Your task to perform on an android device: Open CNN.com Image 0: 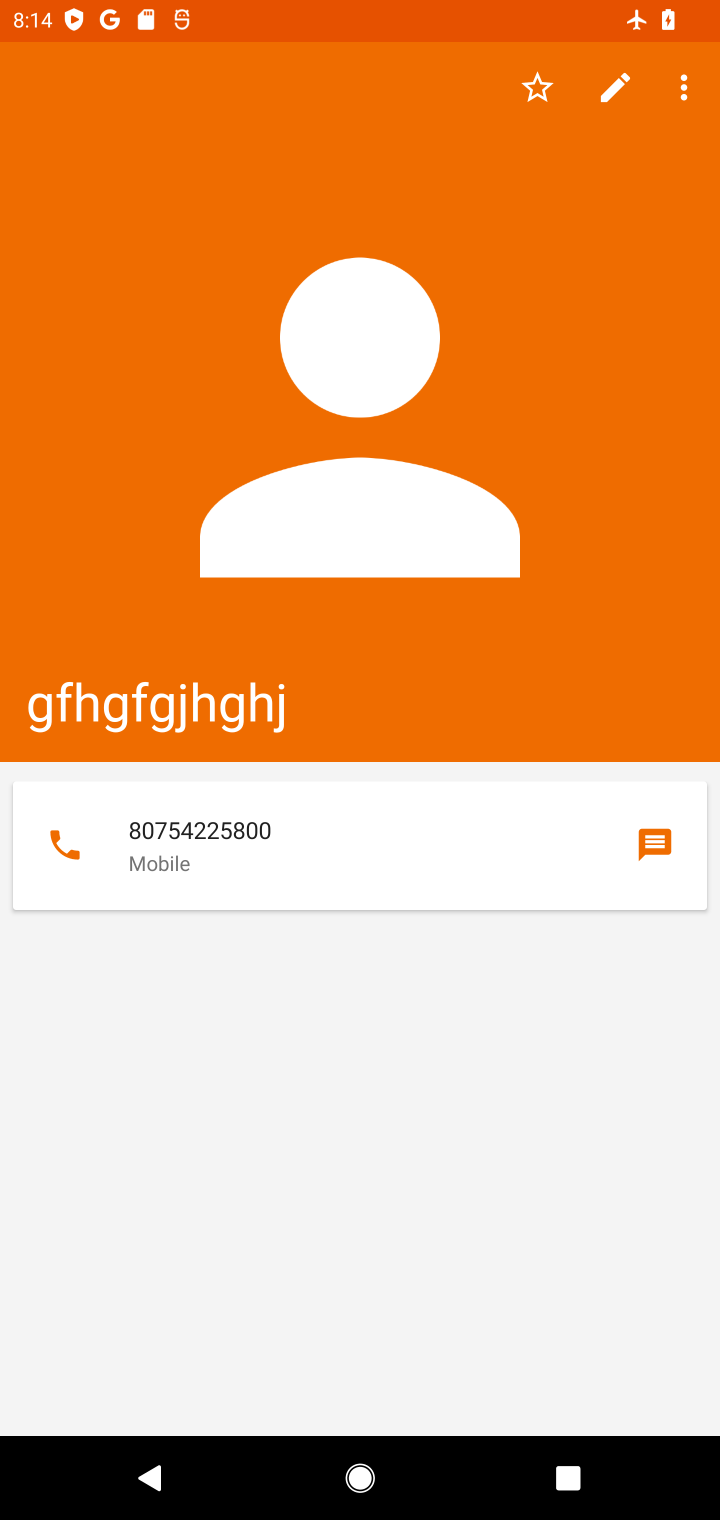
Step 0: press home button
Your task to perform on an android device: Open CNN.com Image 1: 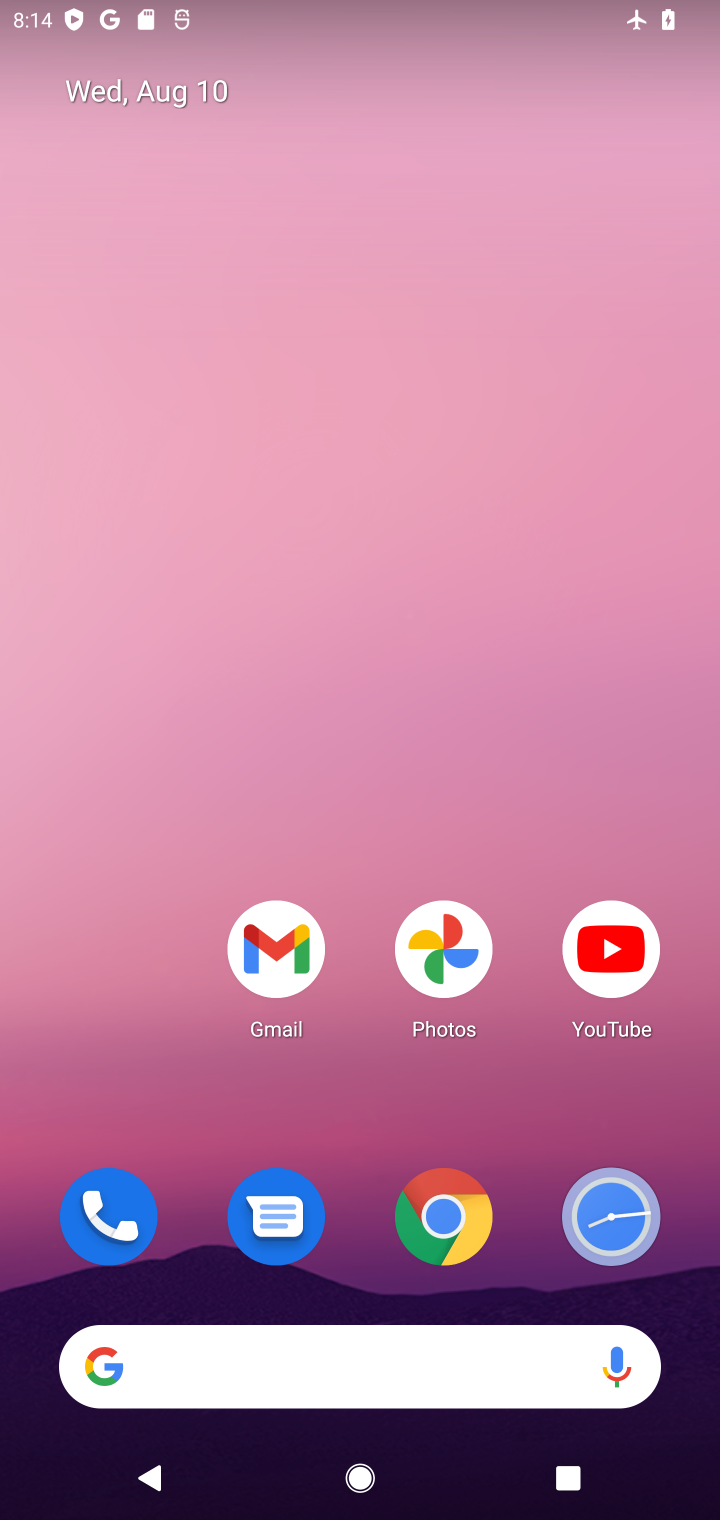
Step 1: click (322, 1373)
Your task to perform on an android device: Open CNN.com Image 2: 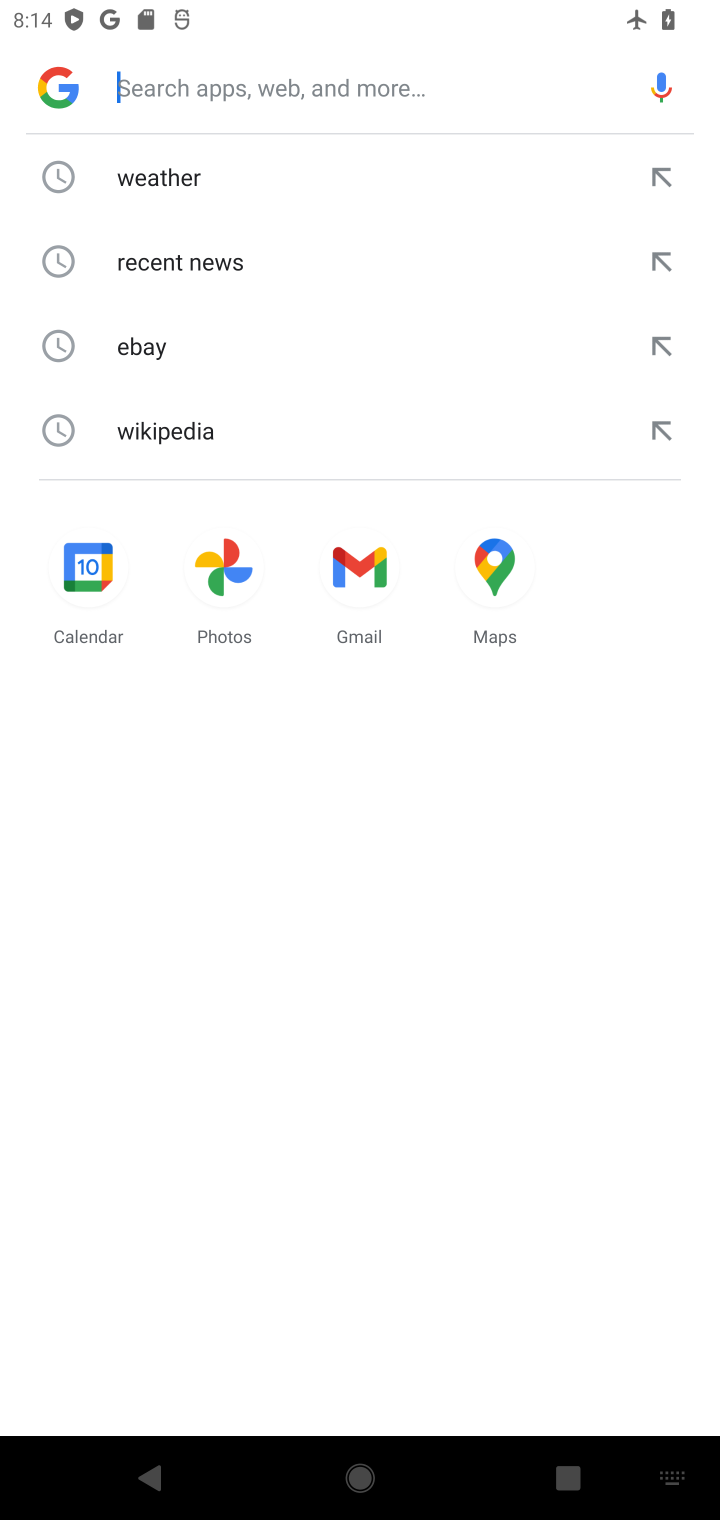
Step 2: click (178, 81)
Your task to perform on an android device: Open CNN.com Image 3: 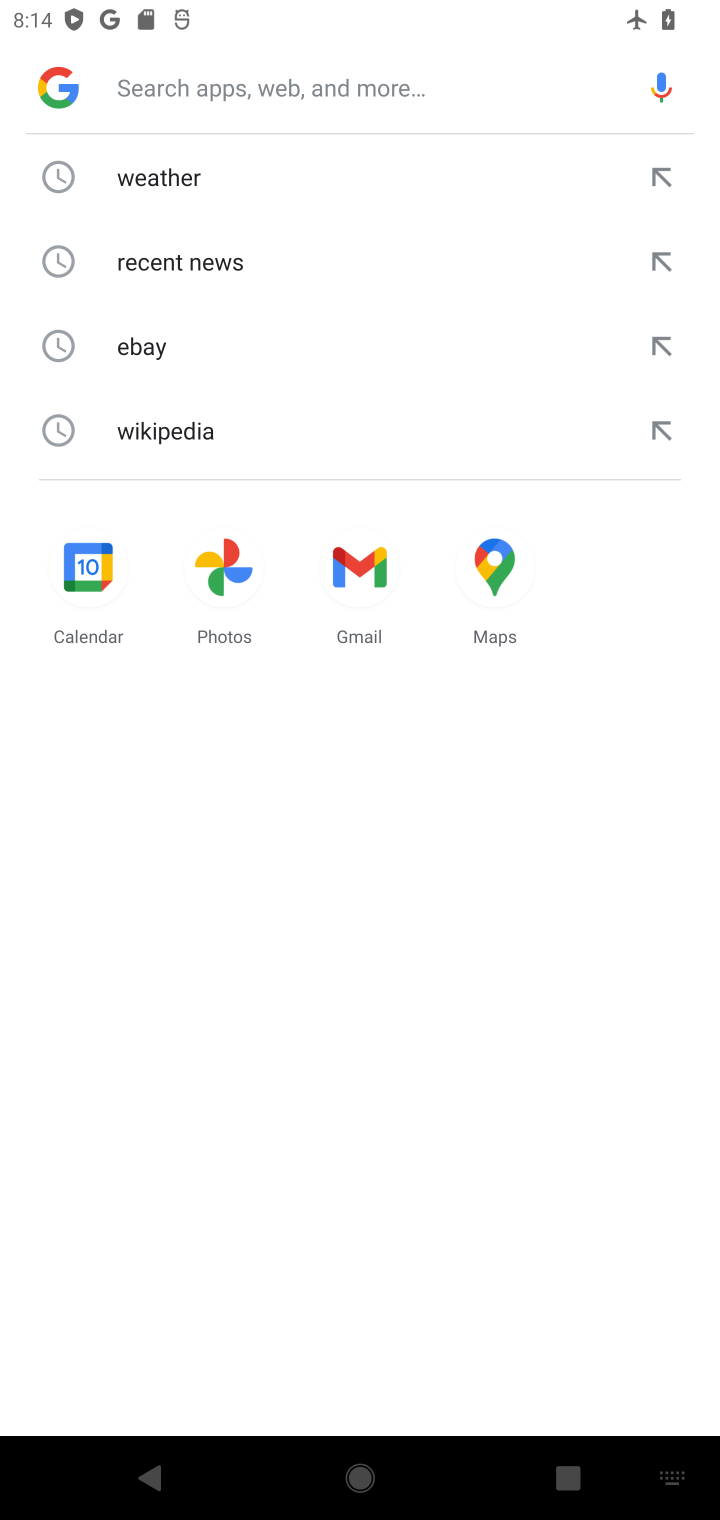
Step 3: type "CNN.com"
Your task to perform on an android device: Open CNN.com Image 4: 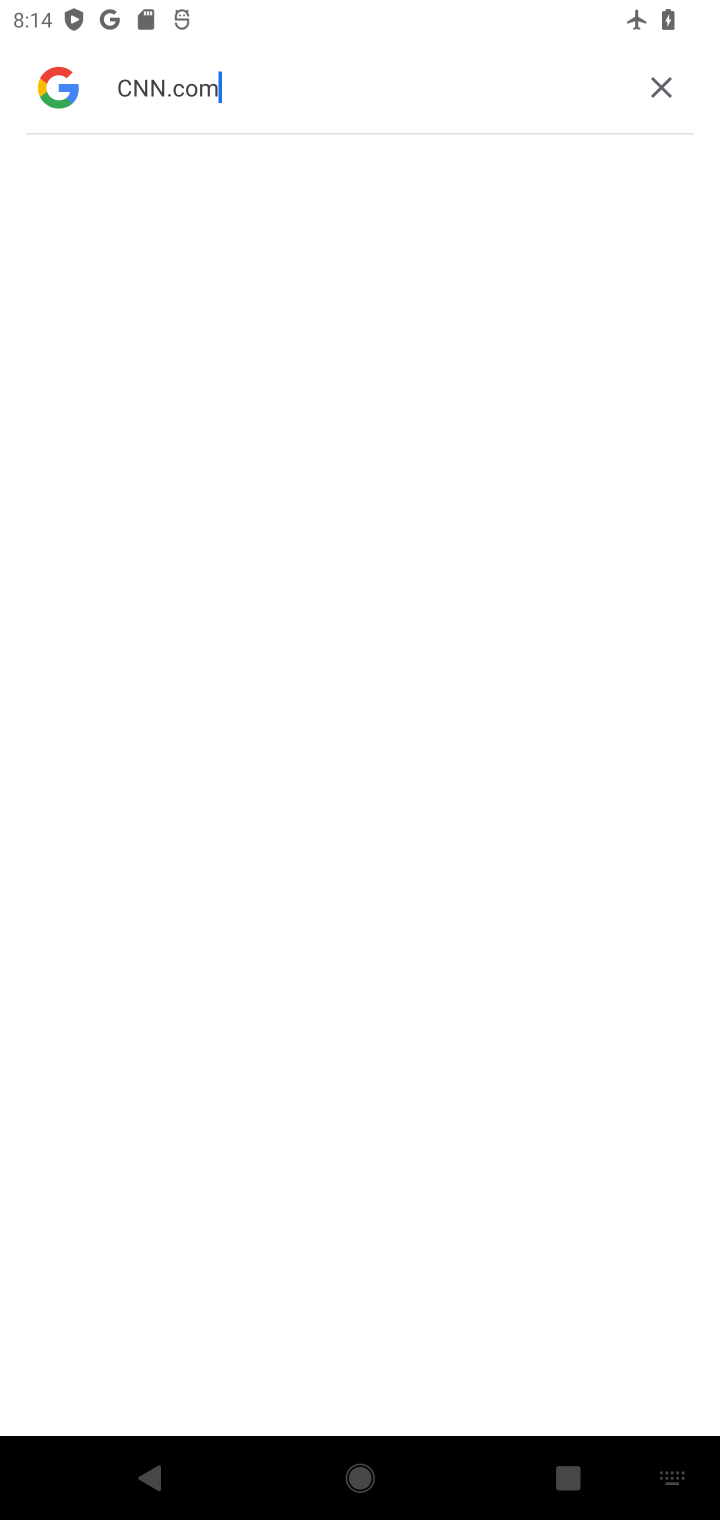
Step 4: task complete